Your task to perform on an android device: open device folders in google photos Image 0: 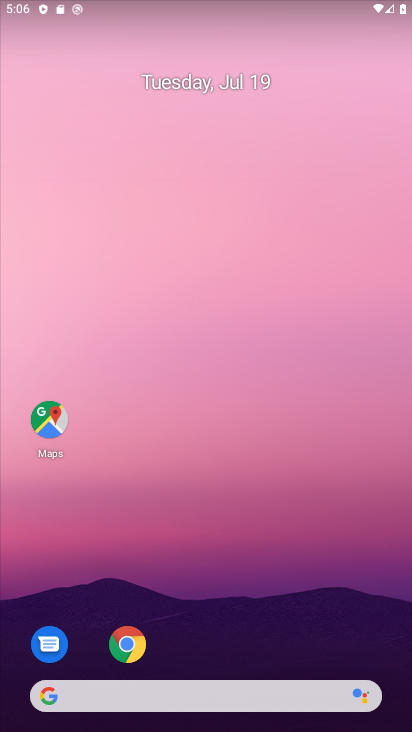
Step 0: drag from (192, 485) to (220, 159)
Your task to perform on an android device: open device folders in google photos Image 1: 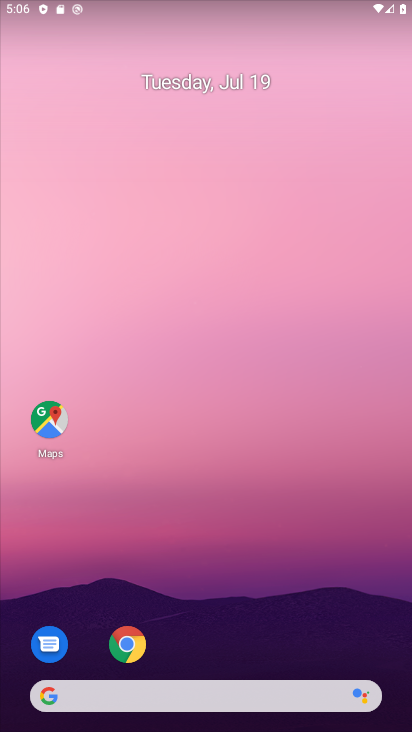
Step 1: drag from (242, 609) to (325, 270)
Your task to perform on an android device: open device folders in google photos Image 2: 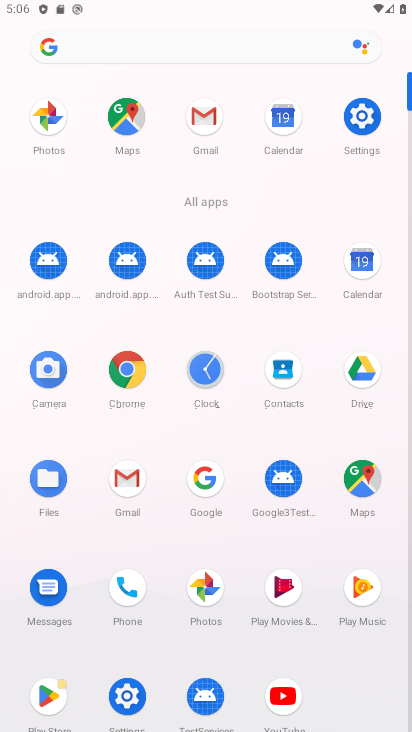
Step 2: click (212, 585)
Your task to perform on an android device: open device folders in google photos Image 3: 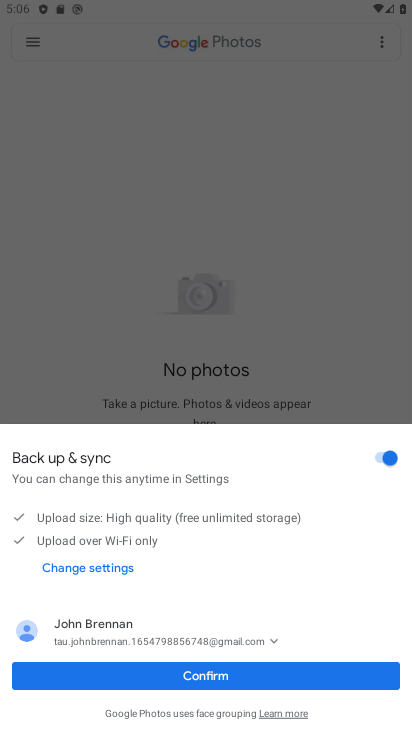
Step 3: task complete